Your task to perform on an android device: show emergency info Image 0: 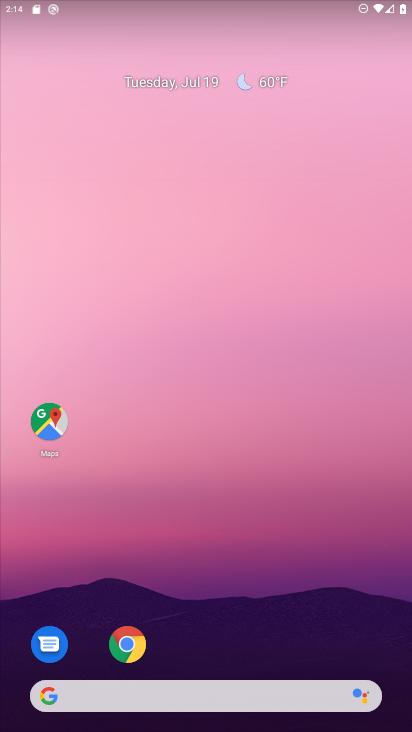
Step 0: drag from (396, 649) to (327, 95)
Your task to perform on an android device: show emergency info Image 1: 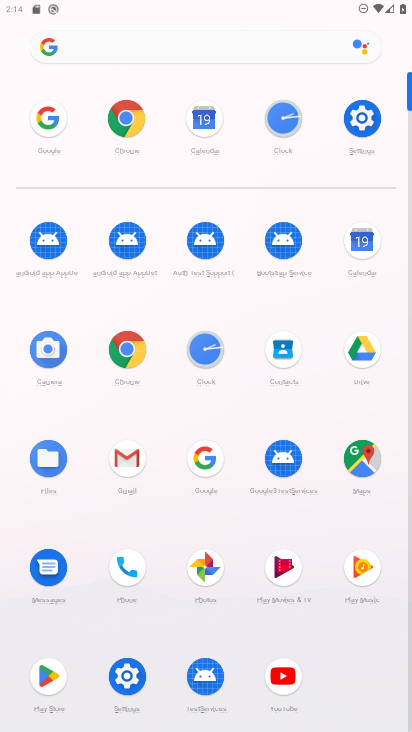
Step 1: click (364, 111)
Your task to perform on an android device: show emergency info Image 2: 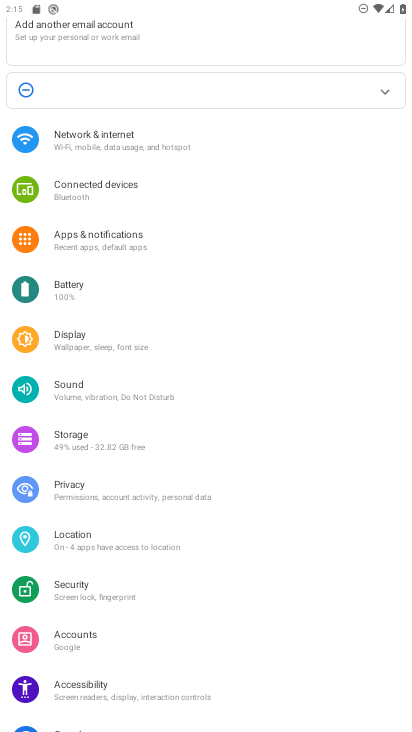
Step 2: drag from (251, 681) to (255, 320)
Your task to perform on an android device: show emergency info Image 3: 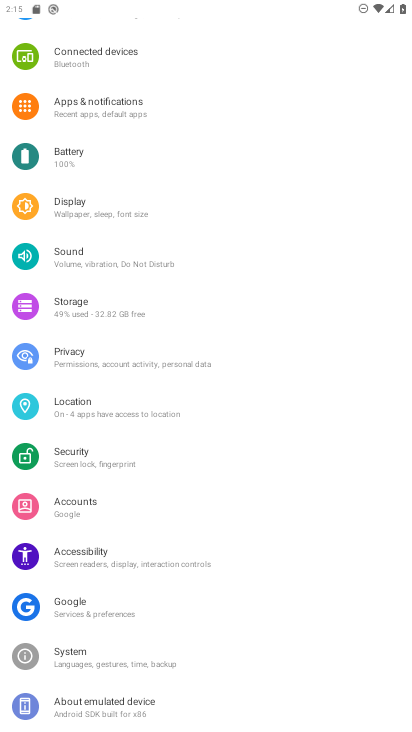
Step 3: click (80, 694)
Your task to perform on an android device: show emergency info Image 4: 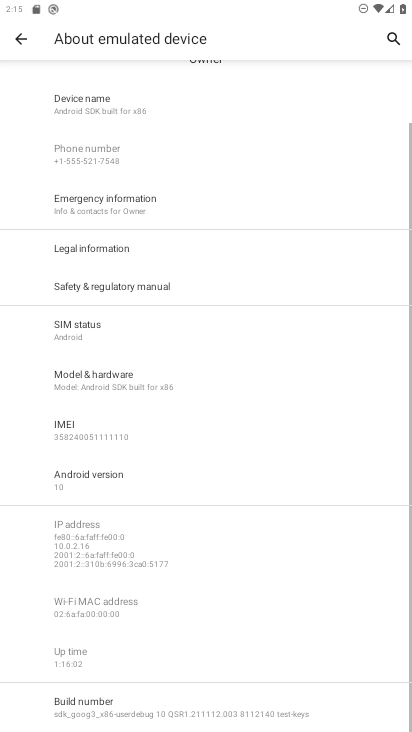
Step 4: task complete